Your task to perform on an android device: toggle improve location accuracy Image 0: 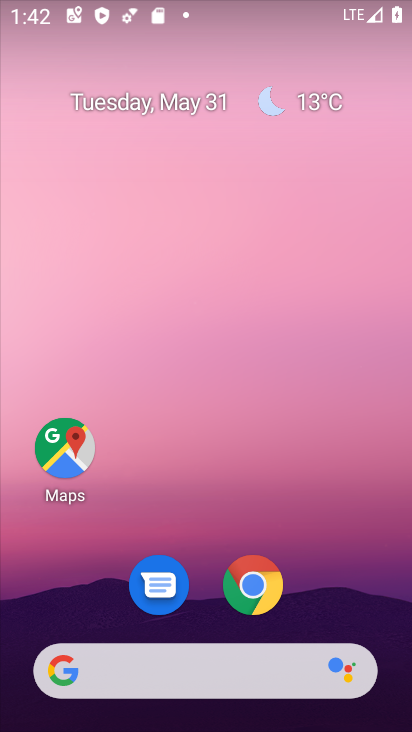
Step 0: drag from (221, 509) to (224, 17)
Your task to perform on an android device: toggle improve location accuracy Image 1: 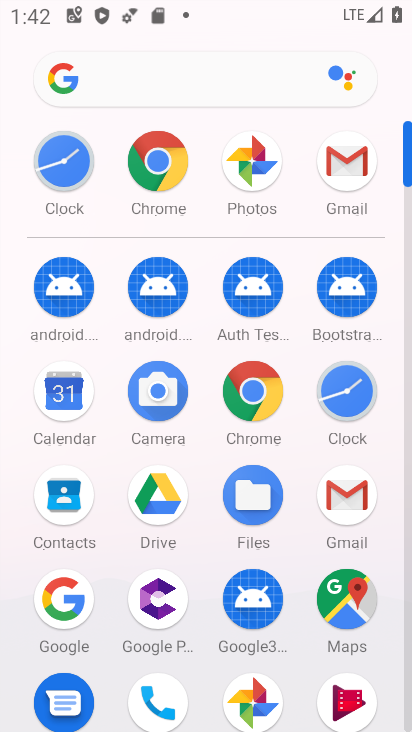
Step 1: drag from (116, 465) to (130, 116)
Your task to perform on an android device: toggle improve location accuracy Image 2: 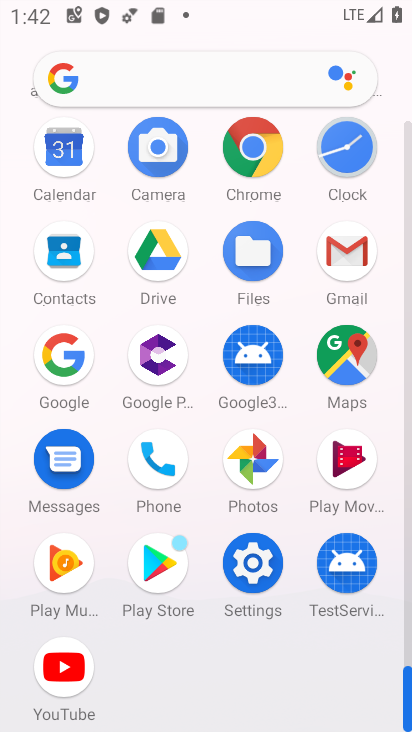
Step 2: click (258, 558)
Your task to perform on an android device: toggle improve location accuracy Image 3: 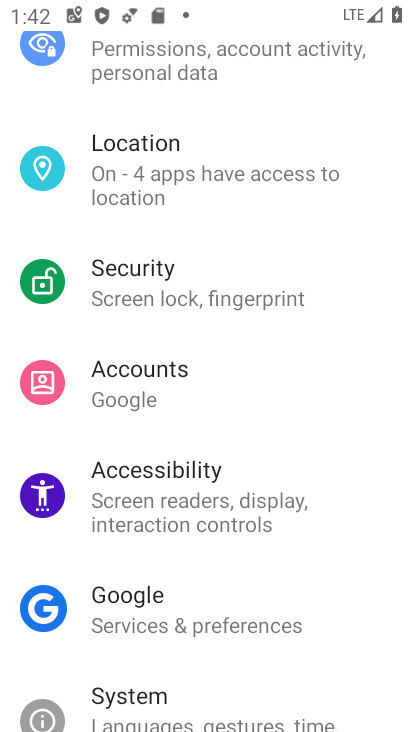
Step 3: click (229, 188)
Your task to perform on an android device: toggle improve location accuracy Image 4: 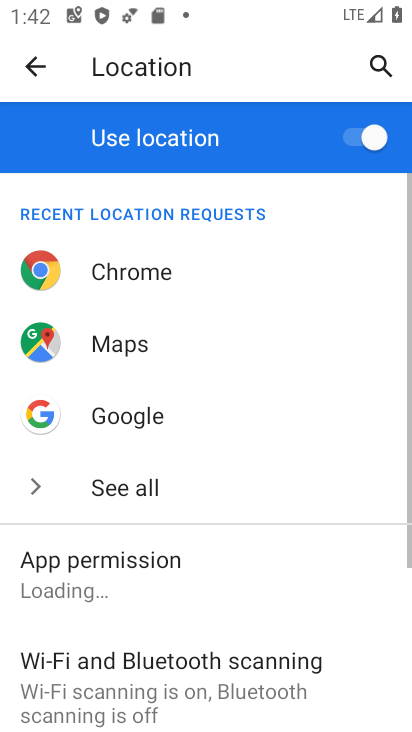
Step 4: drag from (259, 586) to (241, 141)
Your task to perform on an android device: toggle improve location accuracy Image 5: 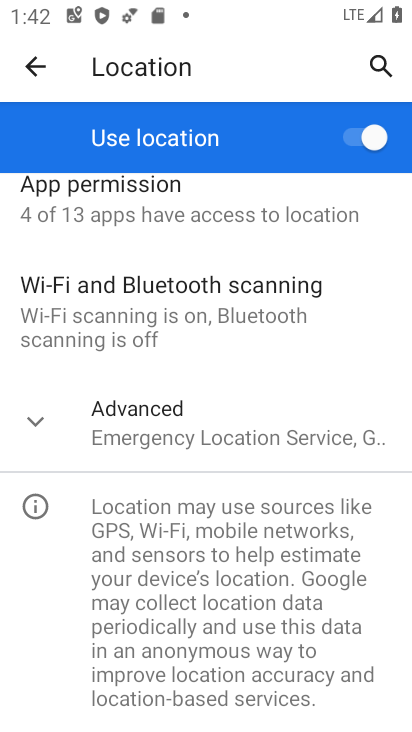
Step 5: click (32, 416)
Your task to perform on an android device: toggle improve location accuracy Image 6: 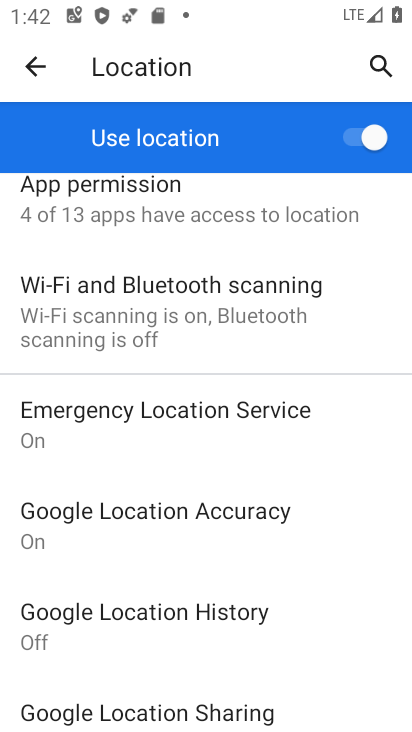
Step 6: click (251, 517)
Your task to perform on an android device: toggle improve location accuracy Image 7: 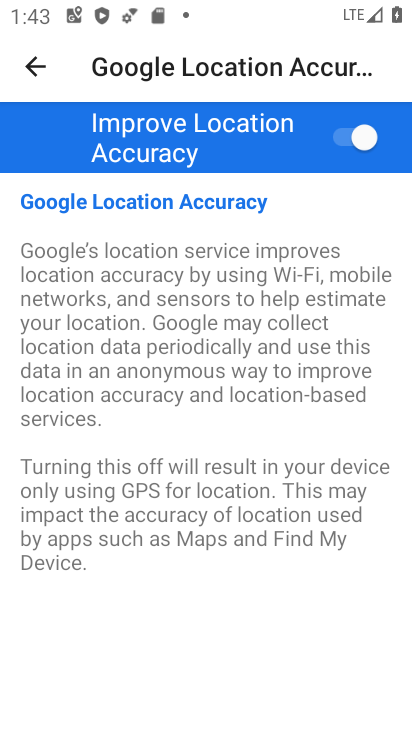
Step 7: click (346, 127)
Your task to perform on an android device: toggle improve location accuracy Image 8: 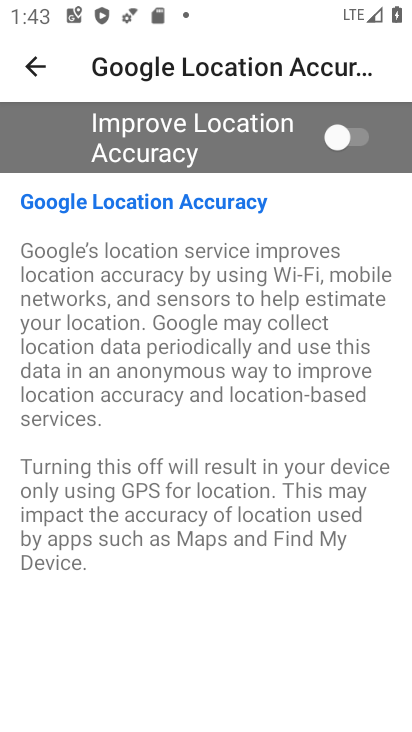
Step 8: task complete